Your task to perform on an android device: Is it going to rain this weekend? Image 0: 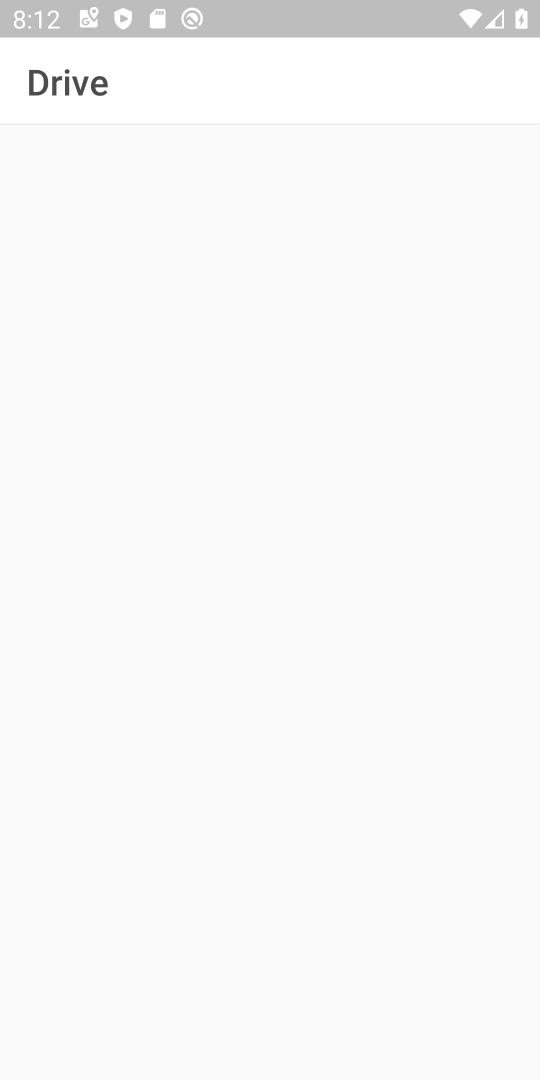
Step 0: press home button
Your task to perform on an android device: Is it going to rain this weekend? Image 1: 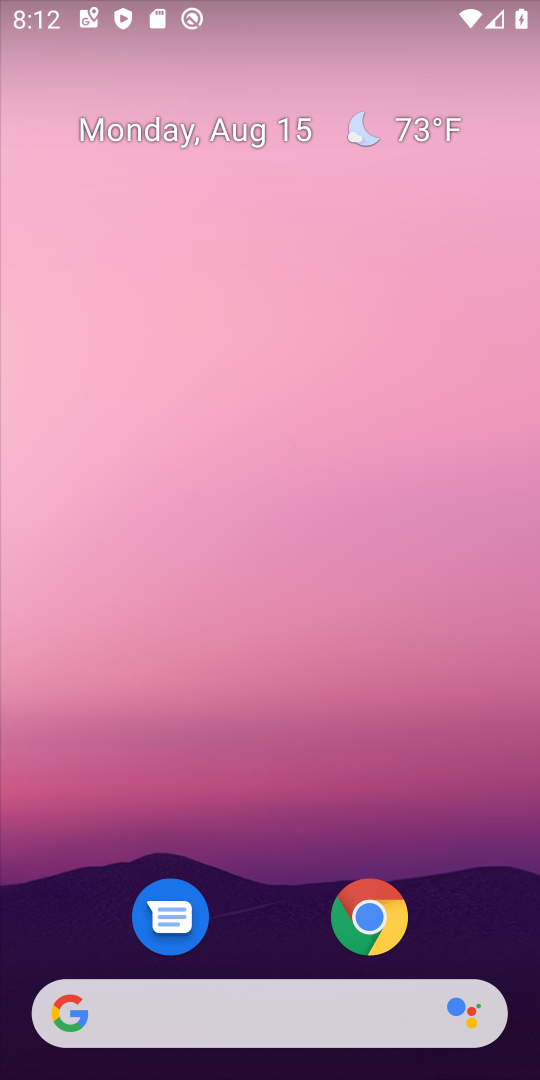
Step 1: click (417, 121)
Your task to perform on an android device: Is it going to rain this weekend? Image 2: 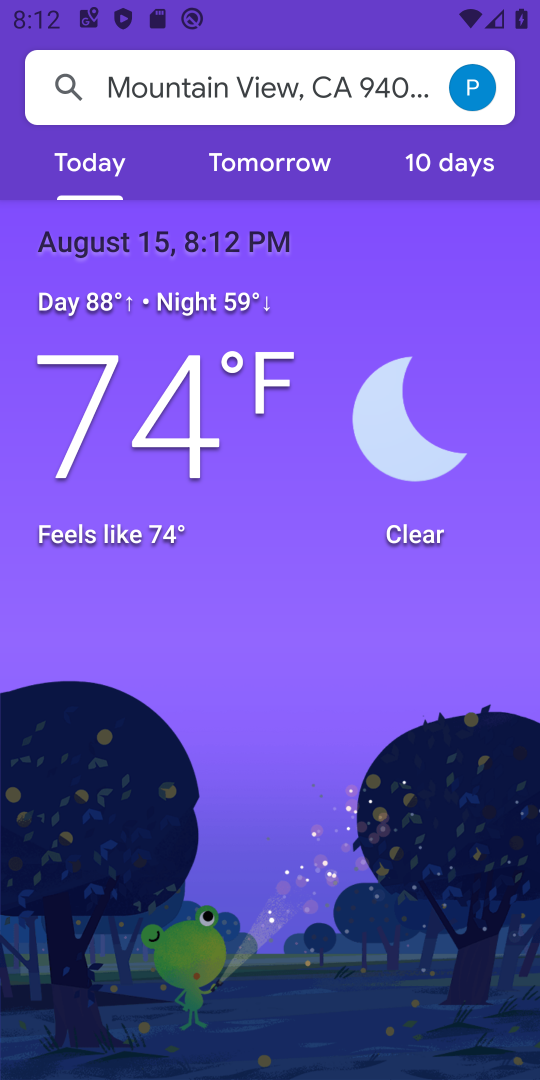
Step 2: click (429, 166)
Your task to perform on an android device: Is it going to rain this weekend? Image 3: 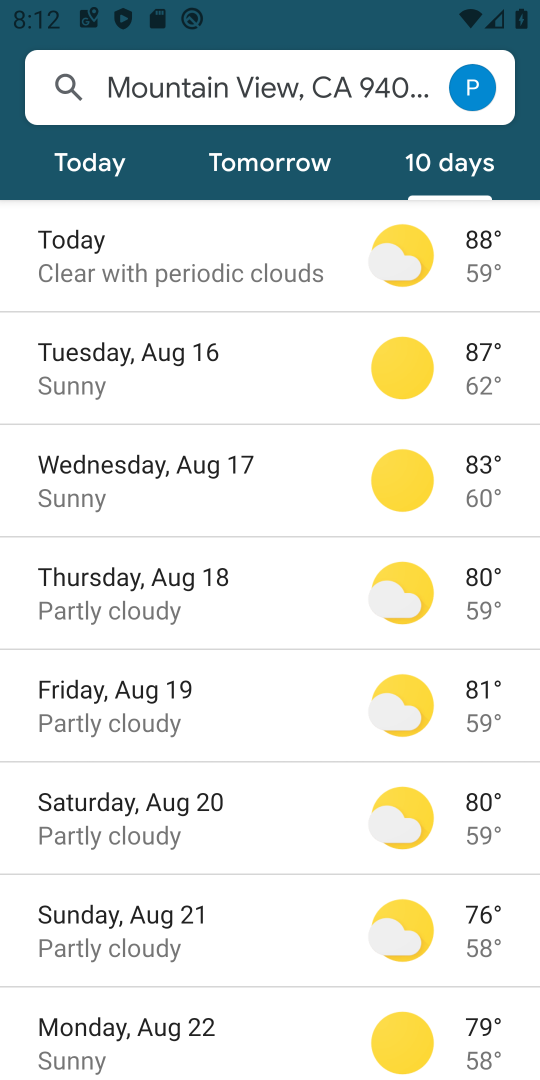
Step 3: click (197, 791)
Your task to perform on an android device: Is it going to rain this weekend? Image 4: 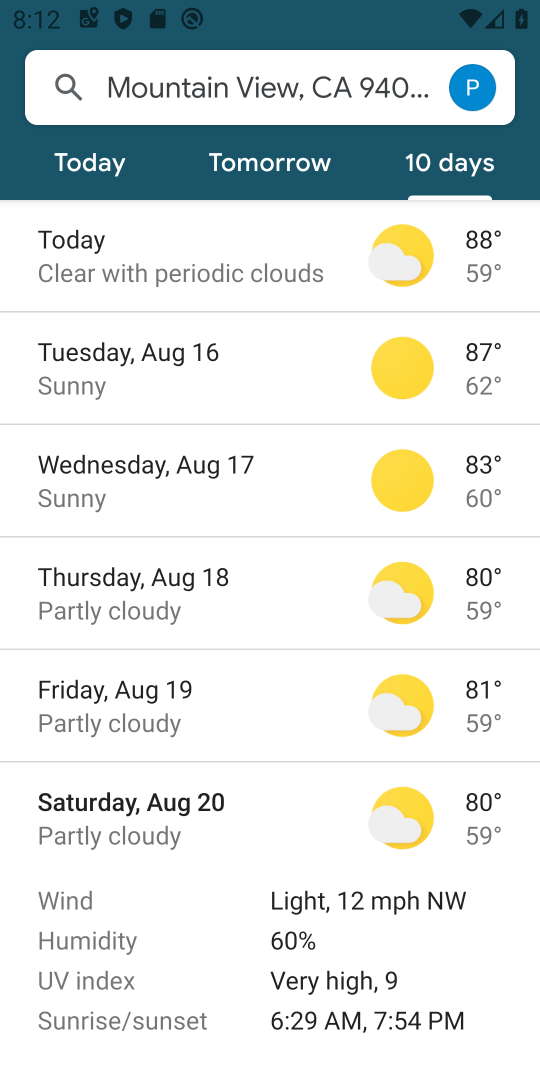
Step 4: task complete